Your task to perform on an android device: set default search engine in the chrome app Image 0: 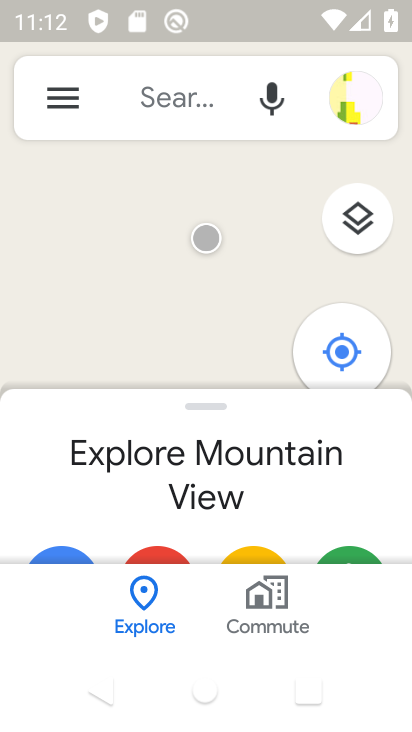
Step 0: press home button
Your task to perform on an android device: set default search engine in the chrome app Image 1: 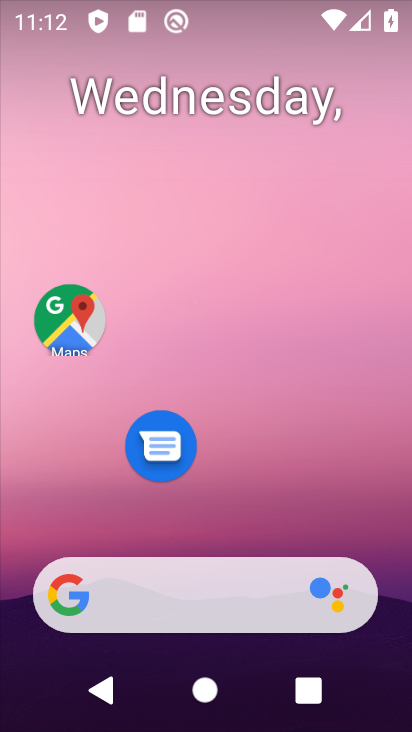
Step 1: drag from (227, 464) to (138, 90)
Your task to perform on an android device: set default search engine in the chrome app Image 2: 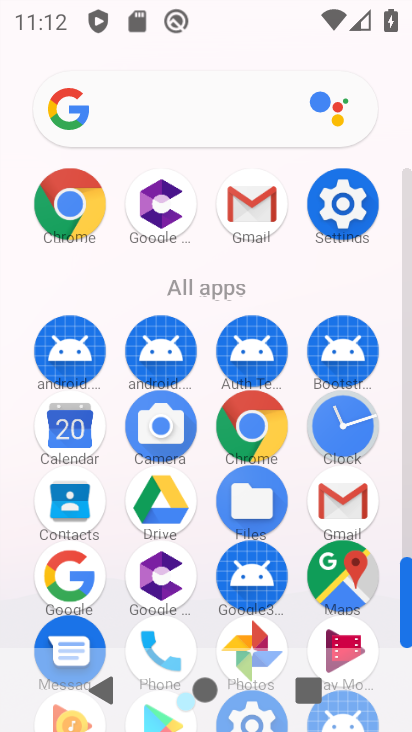
Step 2: click (252, 425)
Your task to perform on an android device: set default search engine in the chrome app Image 3: 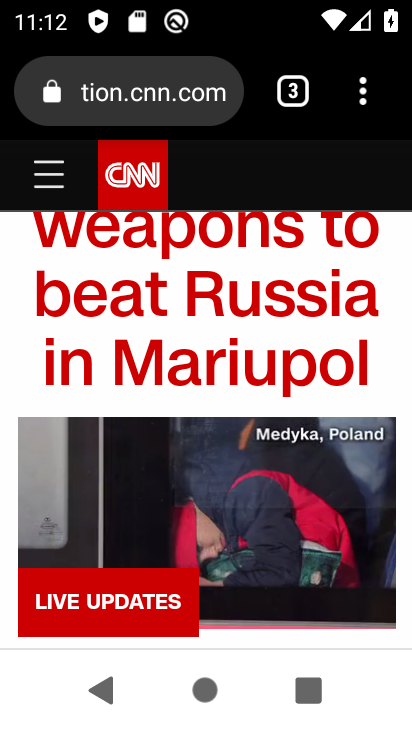
Step 3: drag from (364, 97) to (199, 477)
Your task to perform on an android device: set default search engine in the chrome app Image 4: 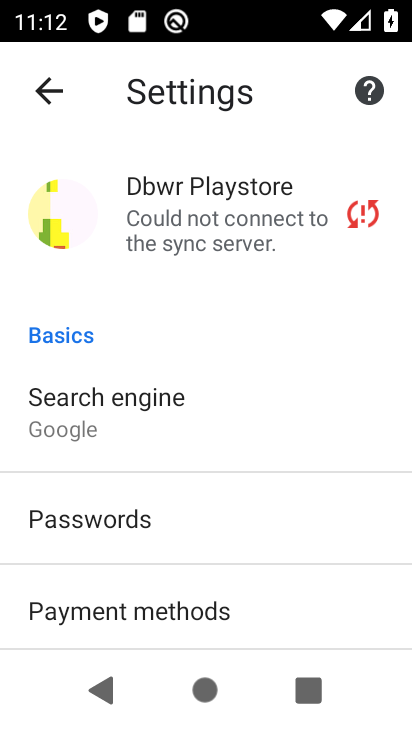
Step 4: click (58, 419)
Your task to perform on an android device: set default search engine in the chrome app Image 5: 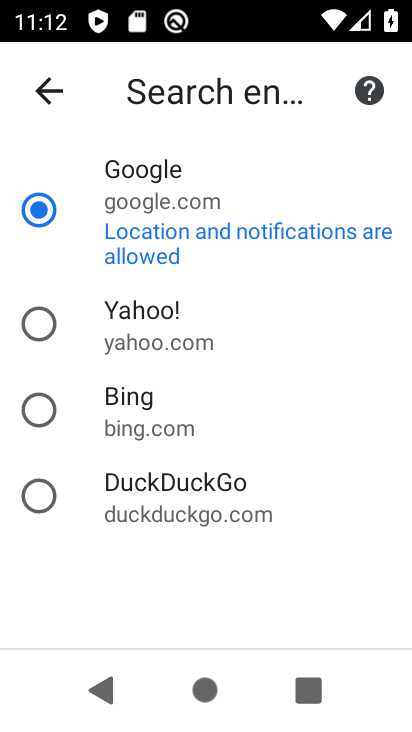
Step 5: click (135, 424)
Your task to perform on an android device: set default search engine in the chrome app Image 6: 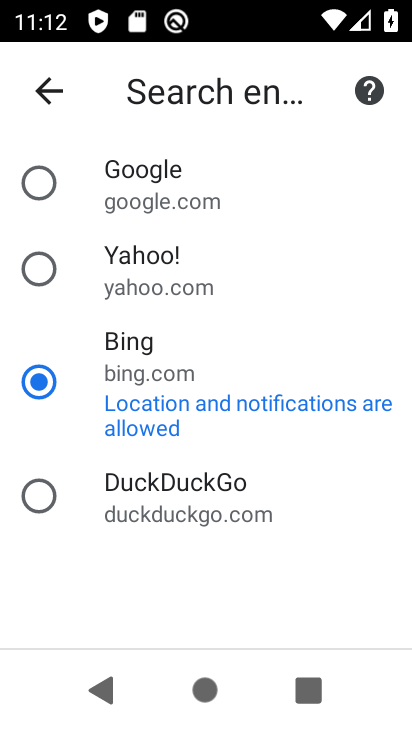
Step 6: task complete